Your task to perform on an android device: turn off location history Image 0: 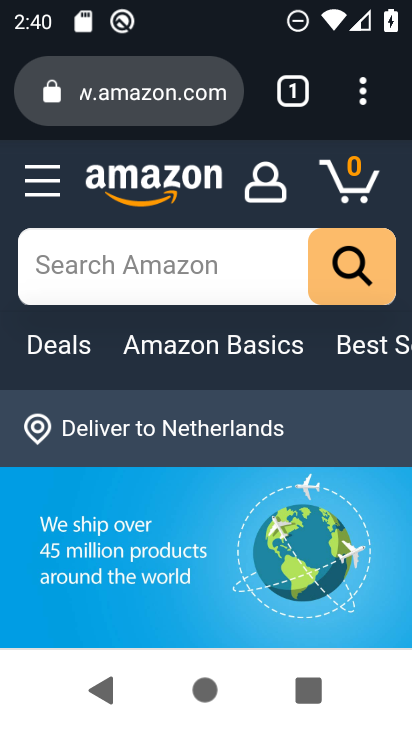
Step 0: press home button
Your task to perform on an android device: turn off location history Image 1: 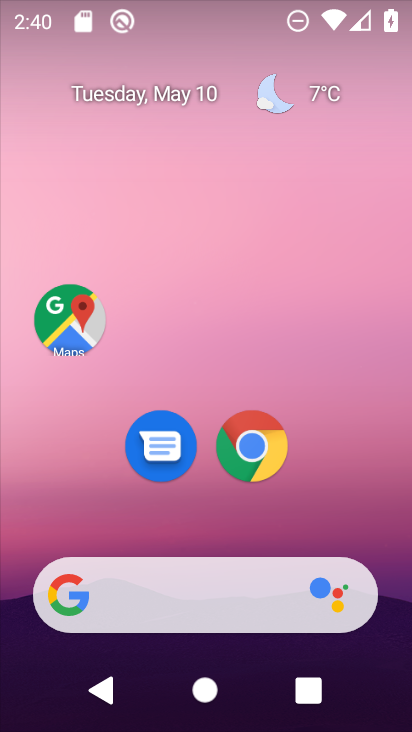
Step 1: drag from (366, 533) to (194, 67)
Your task to perform on an android device: turn off location history Image 2: 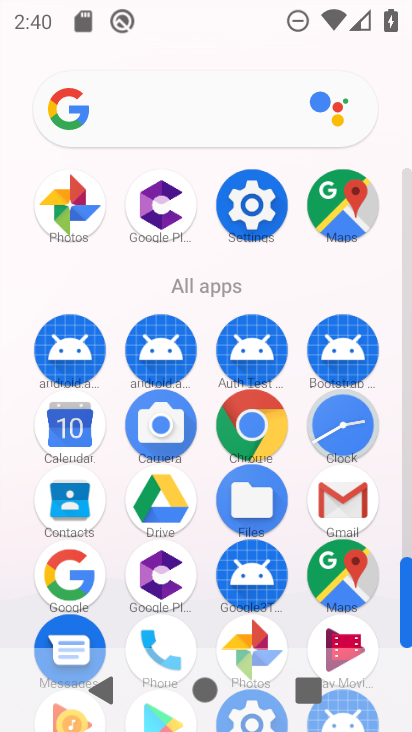
Step 2: click (258, 192)
Your task to perform on an android device: turn off location history Image 3: 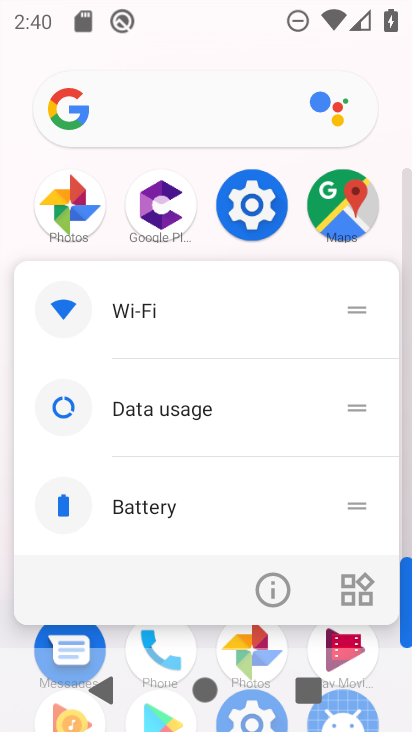
Step 3: click (253, 215)
Your task to perform on an android device: turn off location history Image 4: 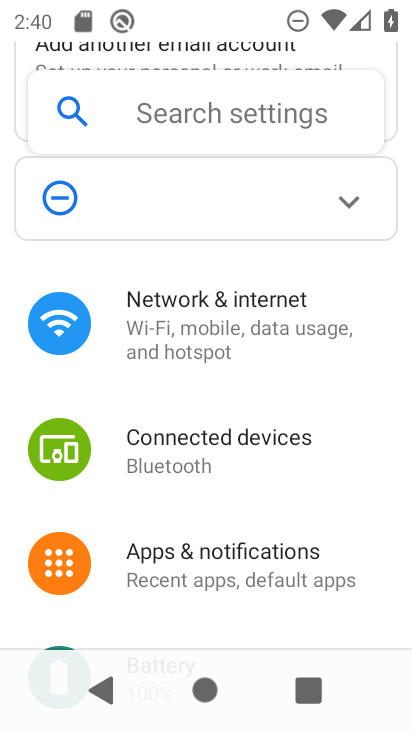
Step 4: drag from (259, 540) to (268, 231)
Your task to perform on an android device: turn off location history Image 5: 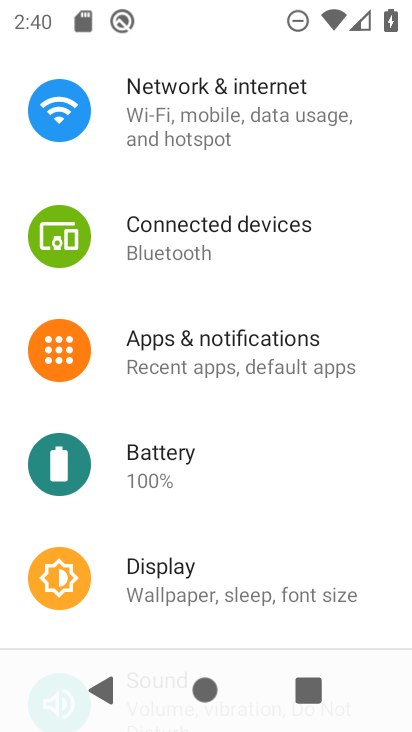
Step 5: drag from (248, 553) to (224, 233)
Your task to perform on an android device: turn off location history Image 6: 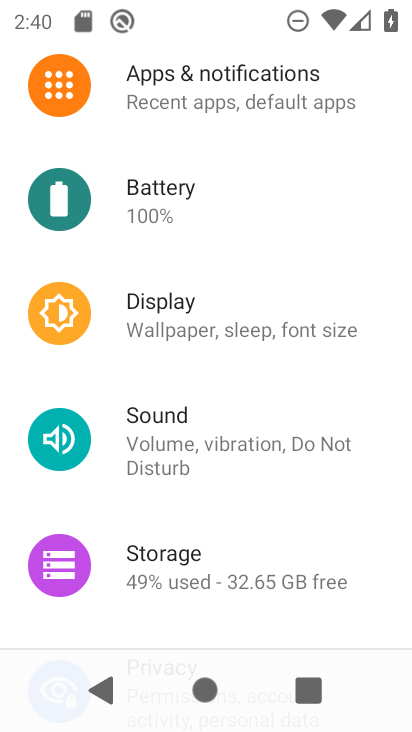
Step 6: drag from (272, 511) to (248, 214)
Your task to perform on an android device: turn off location history Image 7: 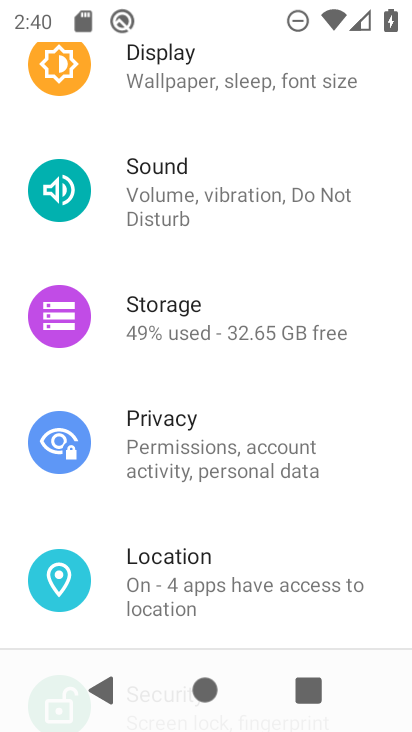
Step 7: click (239, 572)
Your task to perform on an android device: turn off location history Image 8: 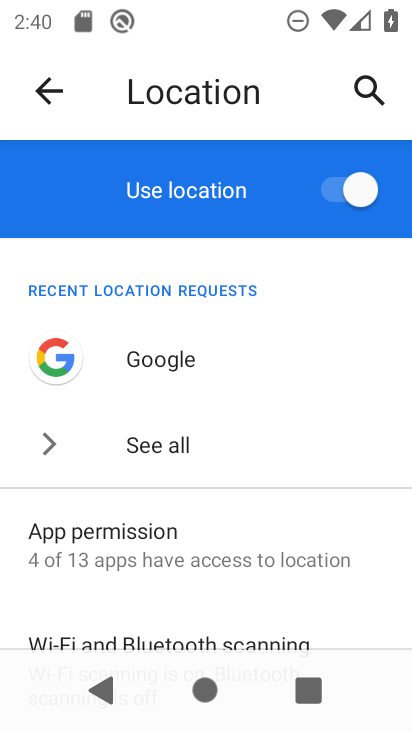
Step 8: drag from (225, 579) to (249, 230)
Your task to perform on an android device: turn off location history Image 9: 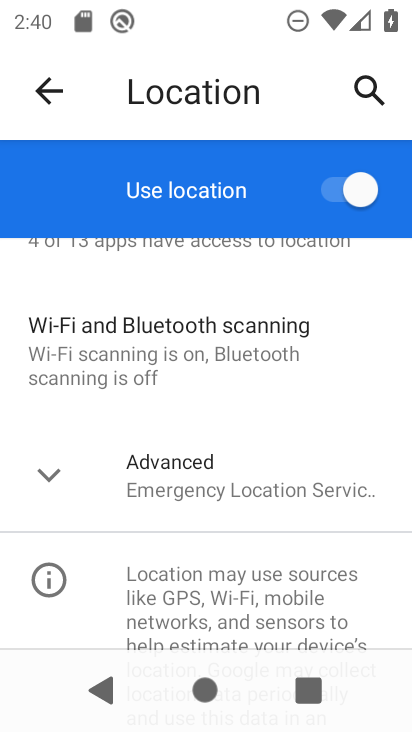
Step 9: click (196, 471)
Your task to perform on an android device: turn off location history Image 10: 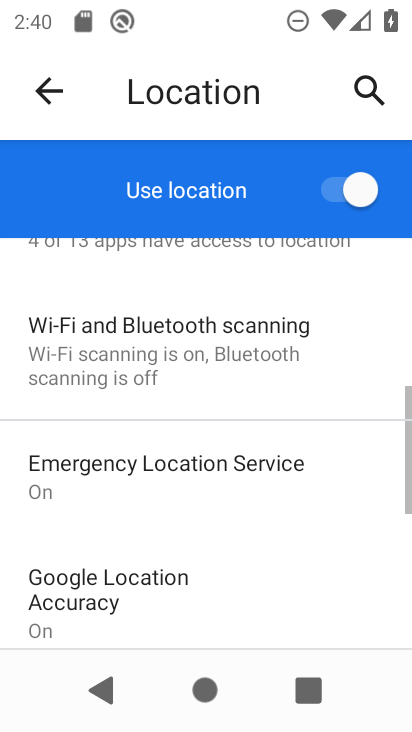
Step 10: drag from (223, 563) to (256, 234)
Your task to perform on an android device: turn off location history Image 11: 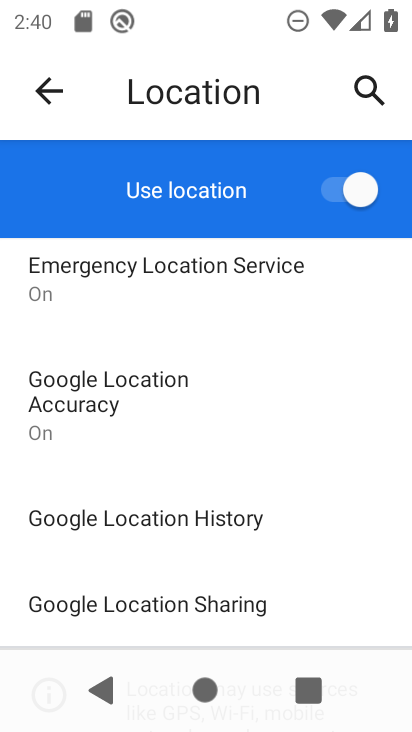
Step 11: click (201, 505)
Your task to perform on an android device: turn off location history Image 12: 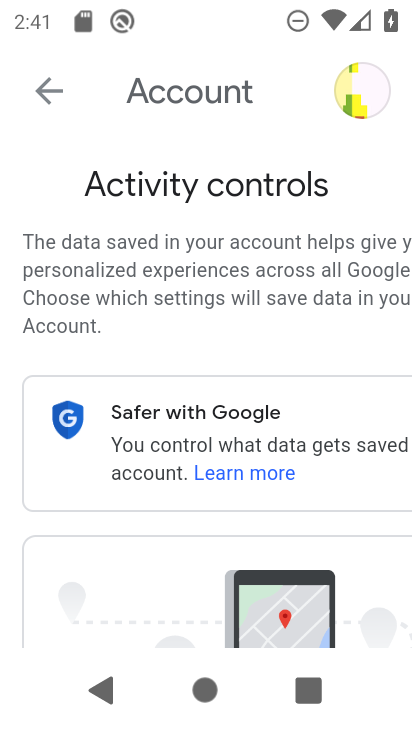
Step 12: drag from (181, 574) to (210, 182)
Your task to perform on an android device: turn off location history Image 13: 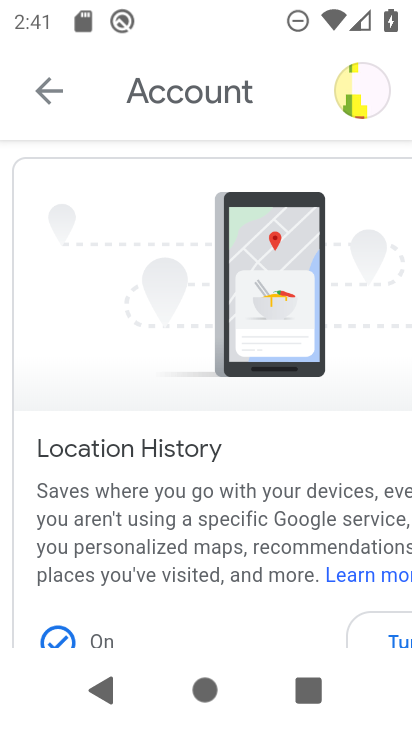
Step 13: drag from (233, 486) to (216, 260)
Your task to perform on an android device: turn off location history Image 14: 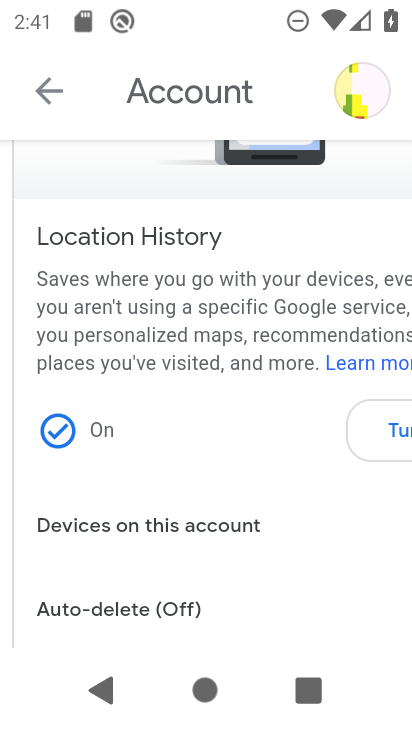
Step 14: click (386, 424)
Your task to perform on an android device: turn off location history Image 15: 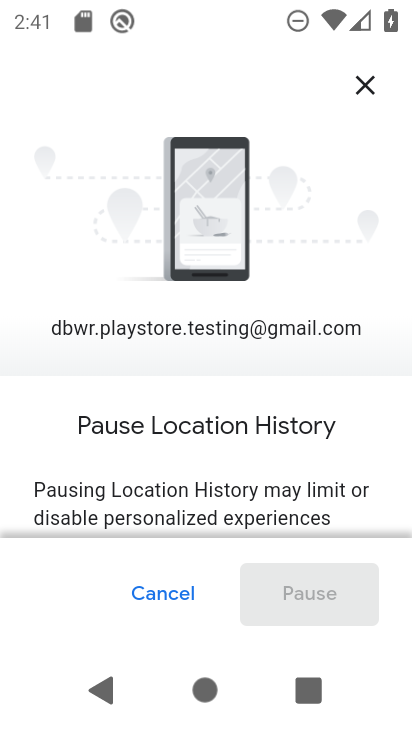
Step 15: drag from (278, 423) to (282, 54)
Your task to perform on an android device: turn off location history Image 16: 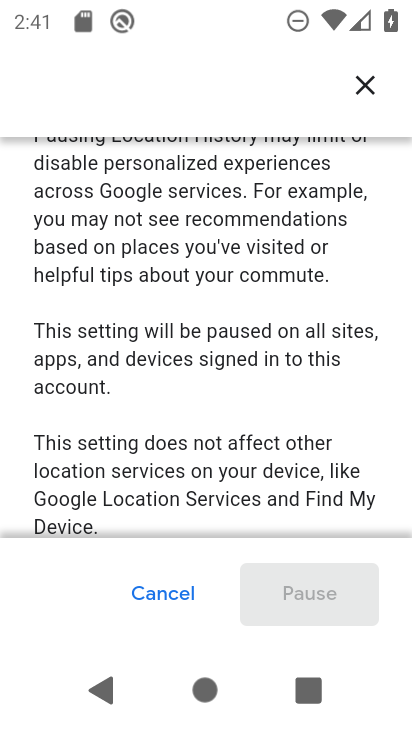
Step 16: drag from (235, 436) to (224, 61)
Your task to perform on an android device: turn off location history Image 17: 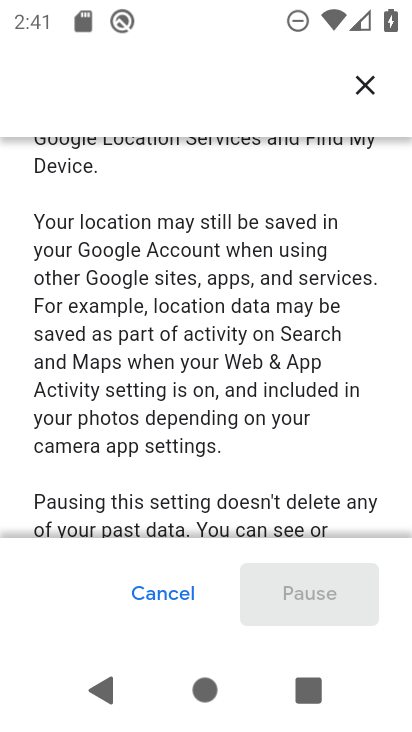
Step 17: drag from (248, 457) to (239, 22)
Your task to perform on an android device: turn off location history Image 18: 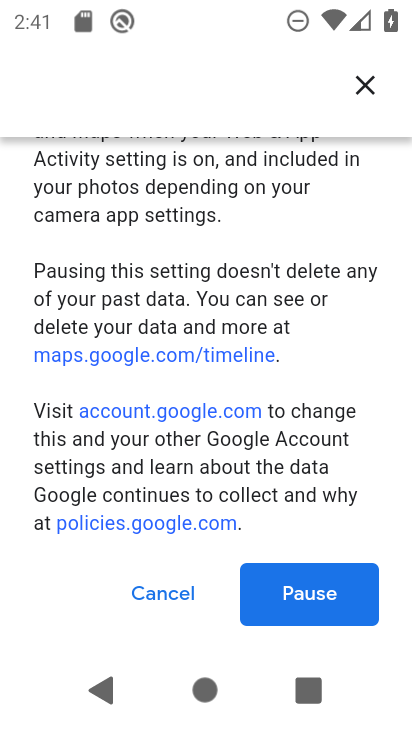
Step 18: click (316, 601)
Your task to perform on an android device: turn off location history Image 19: 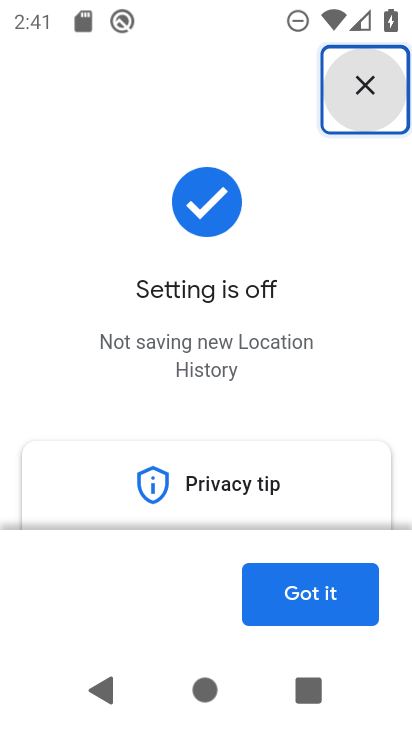
Step 19: click (331, 587)
Your task to perform on an android device: turn off location history Image 20: 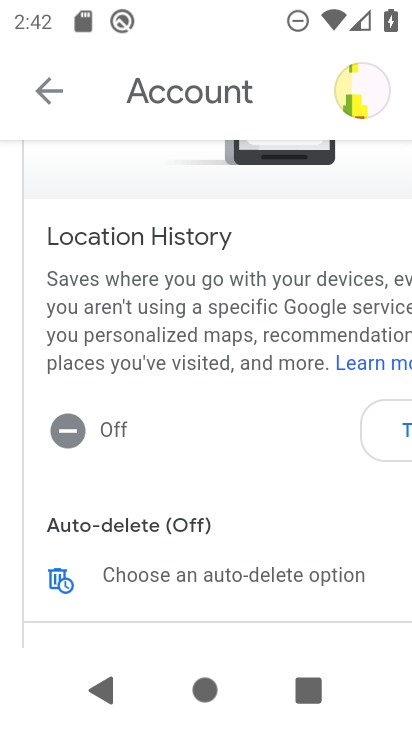
Step 20: task complete